Your task to perform on an android device: open app "Lyft - Rideshare, Bikes, Scooters & Transit" Image 0: 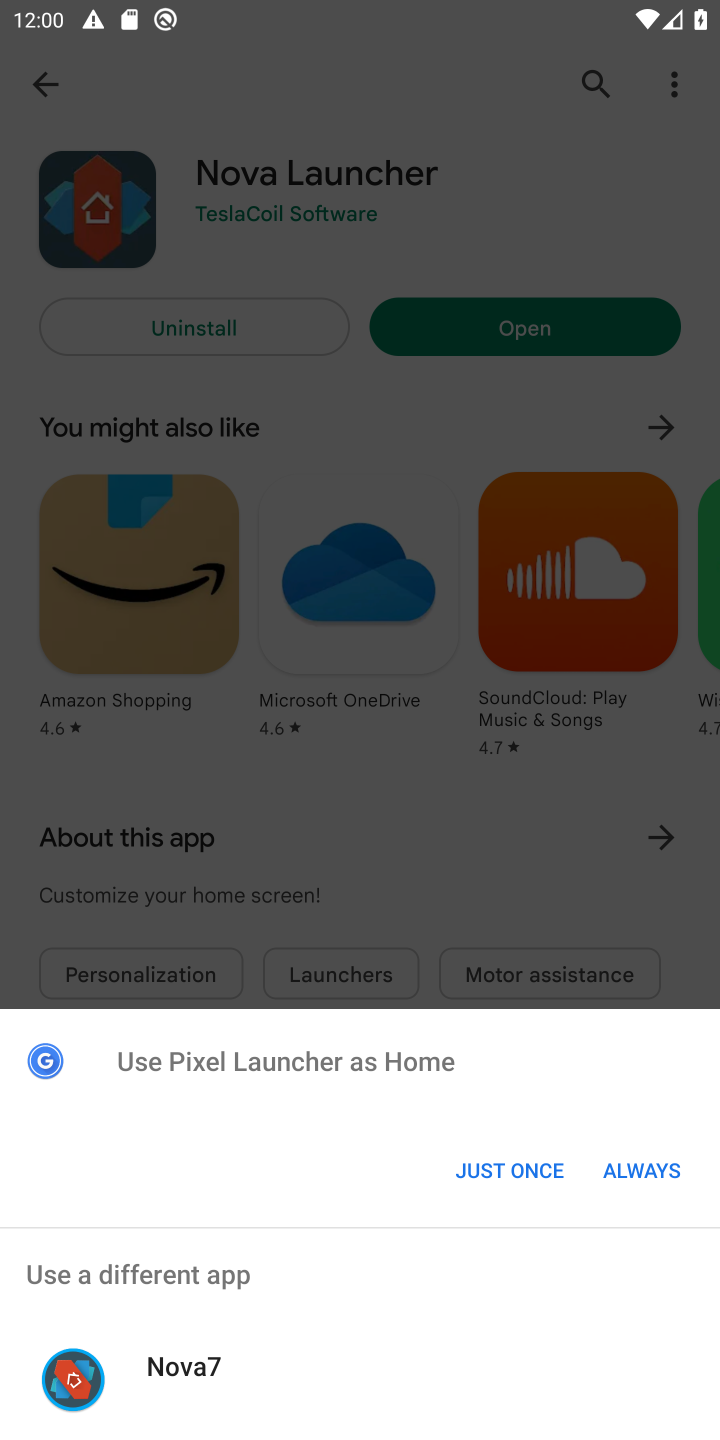
Step 0: click (638, 1172)
Your task to perform on an android device: open app "Lyft - Rideshare, Bikes, Scooters & Transit" Image 1: 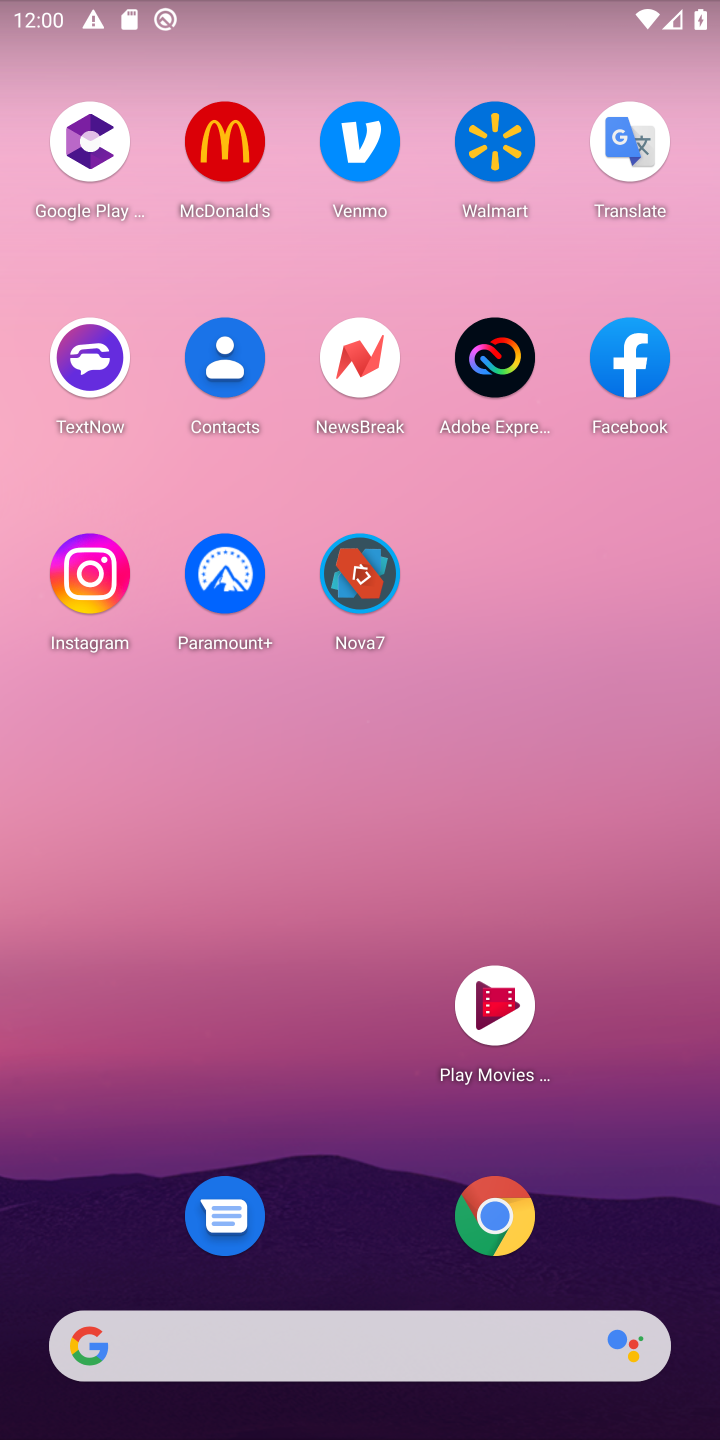
Step 1: drag from (661, 1115) to (717, 38)
Your task to perform on an android device: open app "Lyft - Rideshare, Bikes, Scooters & Transit" Image 2: 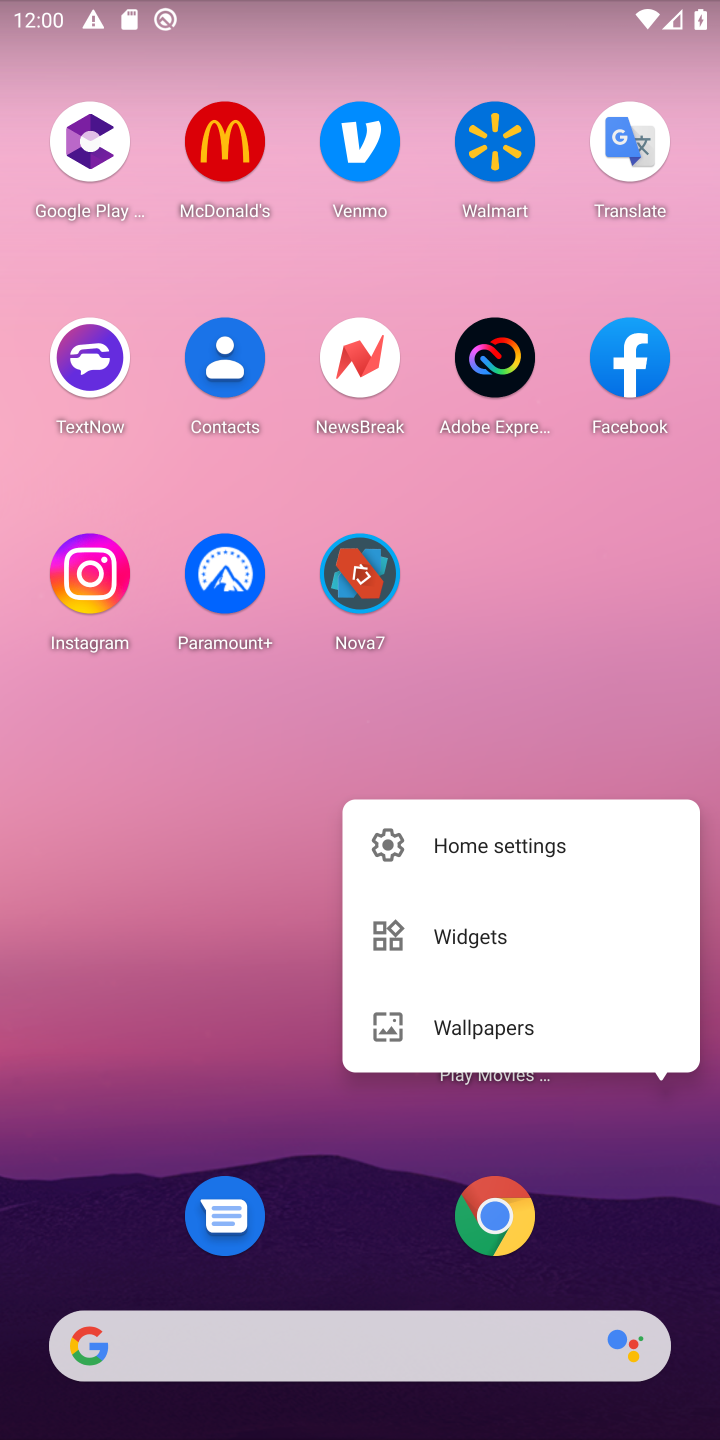
Step 2: click (498, 726)
Your task to perform on an android device: open app "Lyft - Rideshare, Bikes, Scooters & Transit" Image 3: 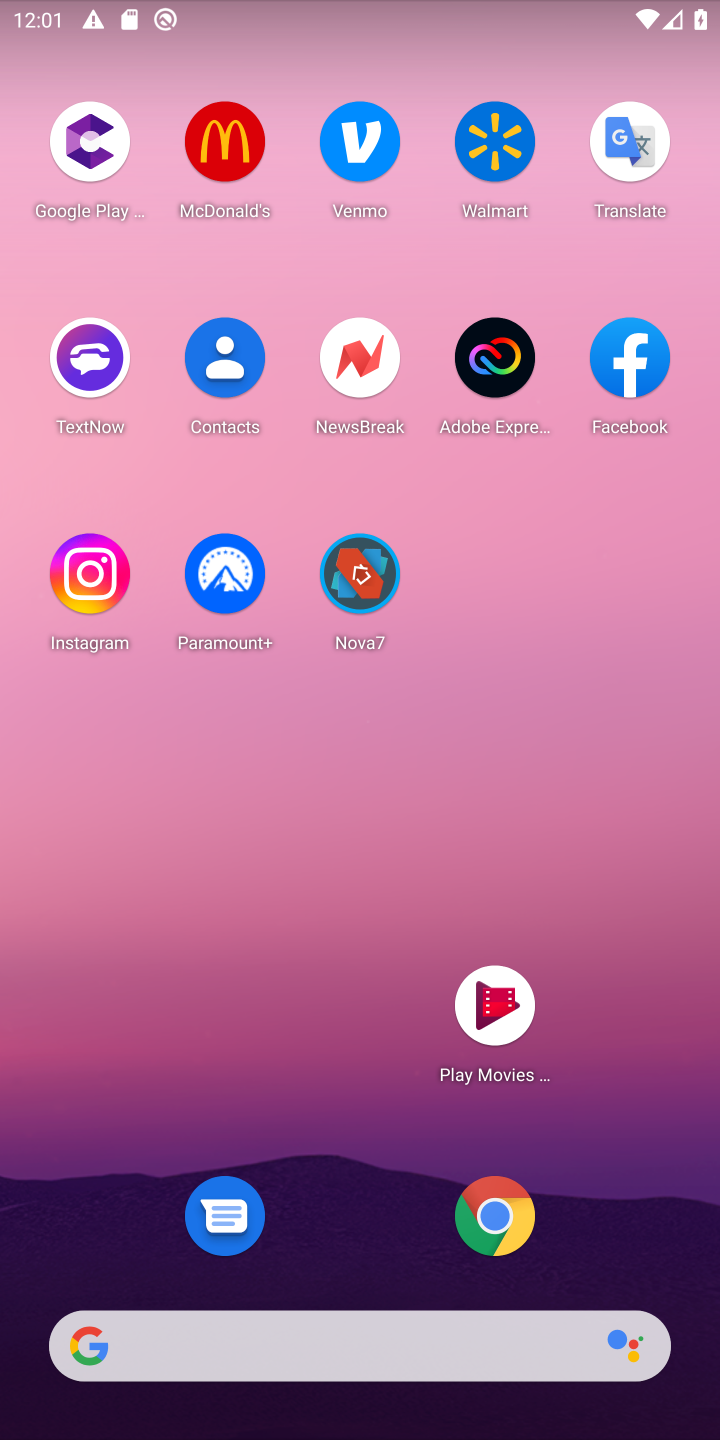
Step 3: drag from (650, 1096) to (683, 127)
Your task to perform on an android device: open app "Lyft - Rideshare, Bikes, Scooters & Transit" Image 4: 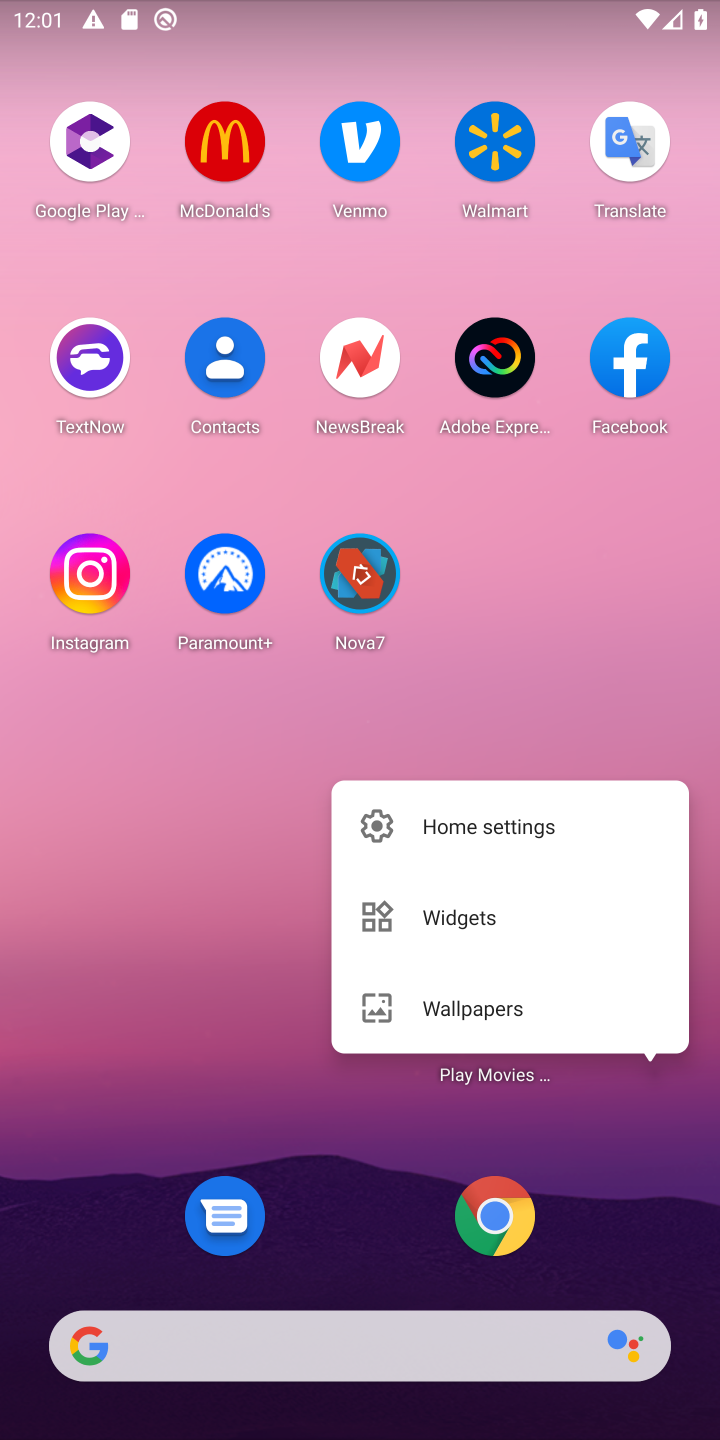
Step 4: click (246, 919)
Your task to perform on an android device: open app "Lyft - Rideshare, Bikes, Scooters & Transit" Image 5: 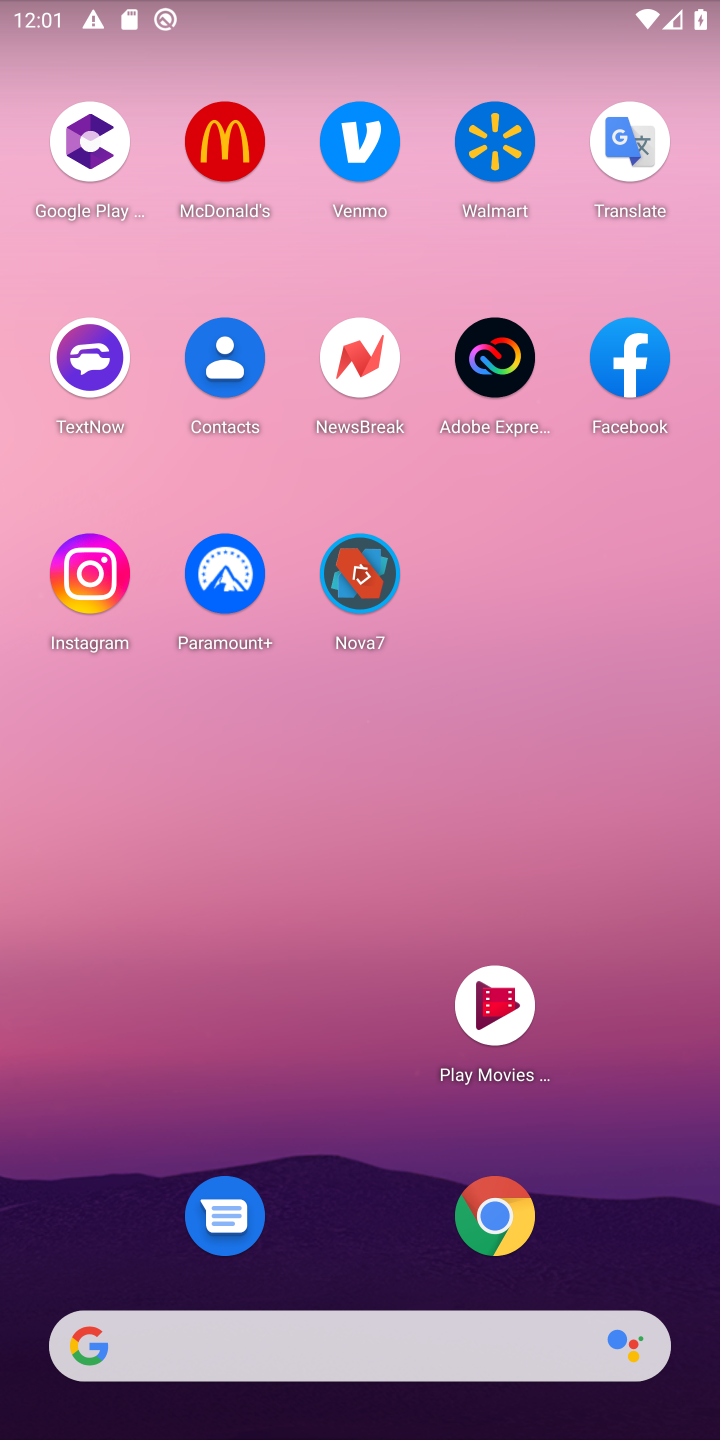
Step 5: drag from (383, 1239) to (466, 187)
Your task to perform on an android device: open app "Lyft - Rideshare, Bikes, Scooters & Transit" Image 6: 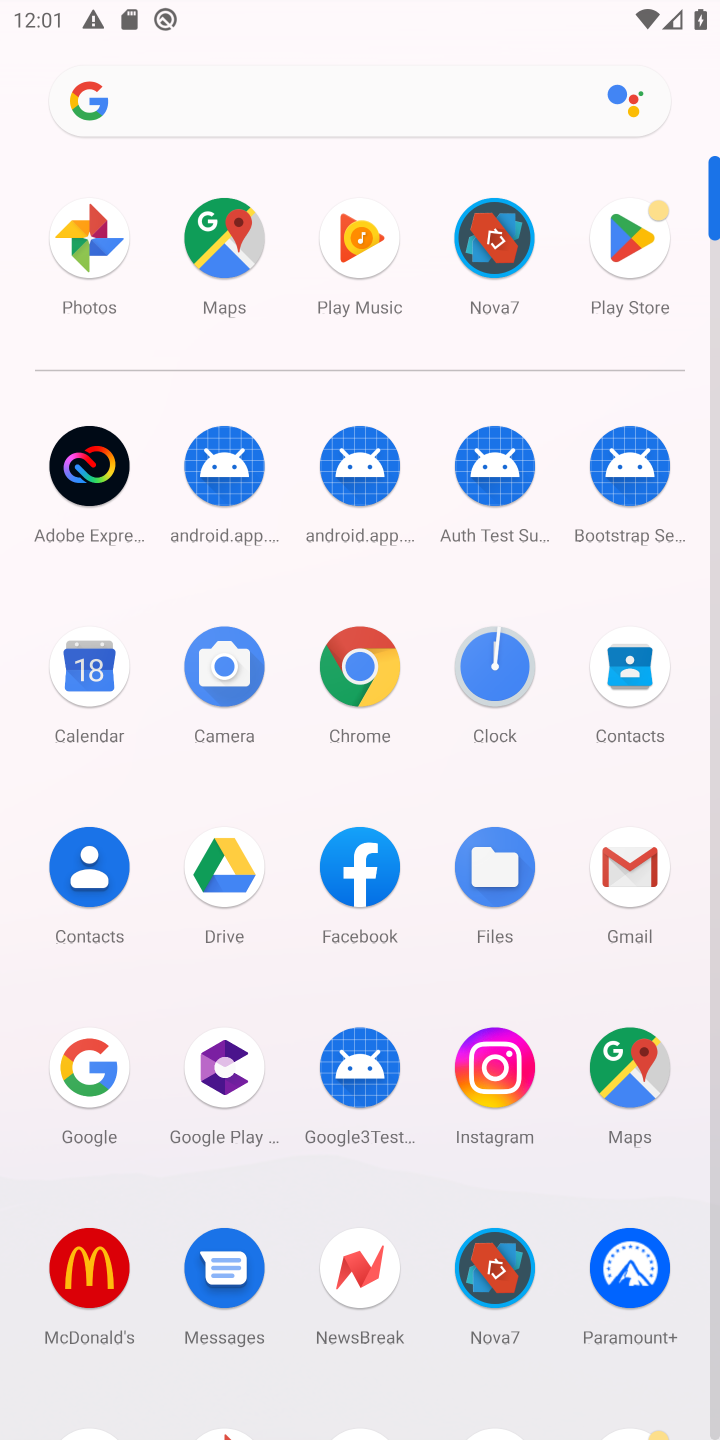
Step 6: click (629, 245)
Your task to perform on an android device: open app "Lyft - Rideshare, Bikes, Scooters & Transit" Image 7: 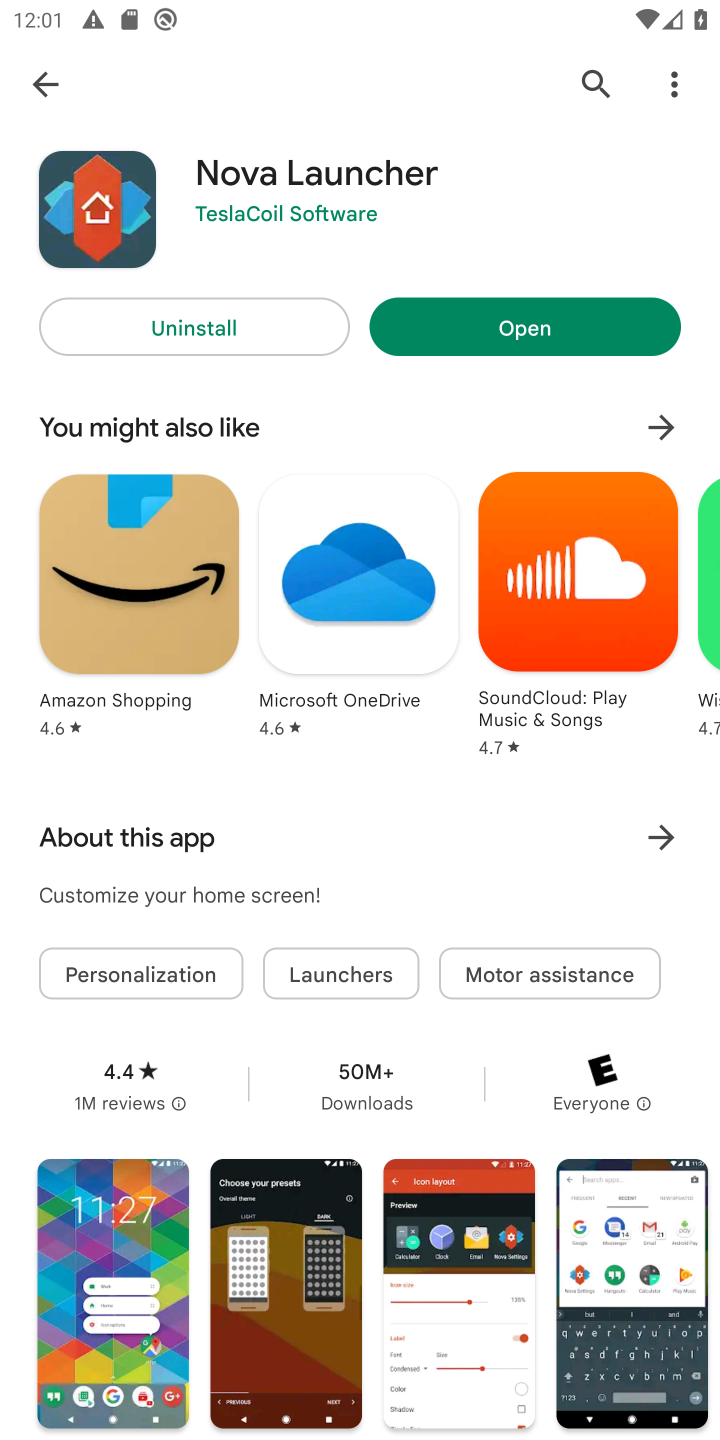
Step 7: click (594, 67)
Your task to perform on an android device: open app "Lyft - Rideshare, Bikes, Scooters & Transit" Image 8: 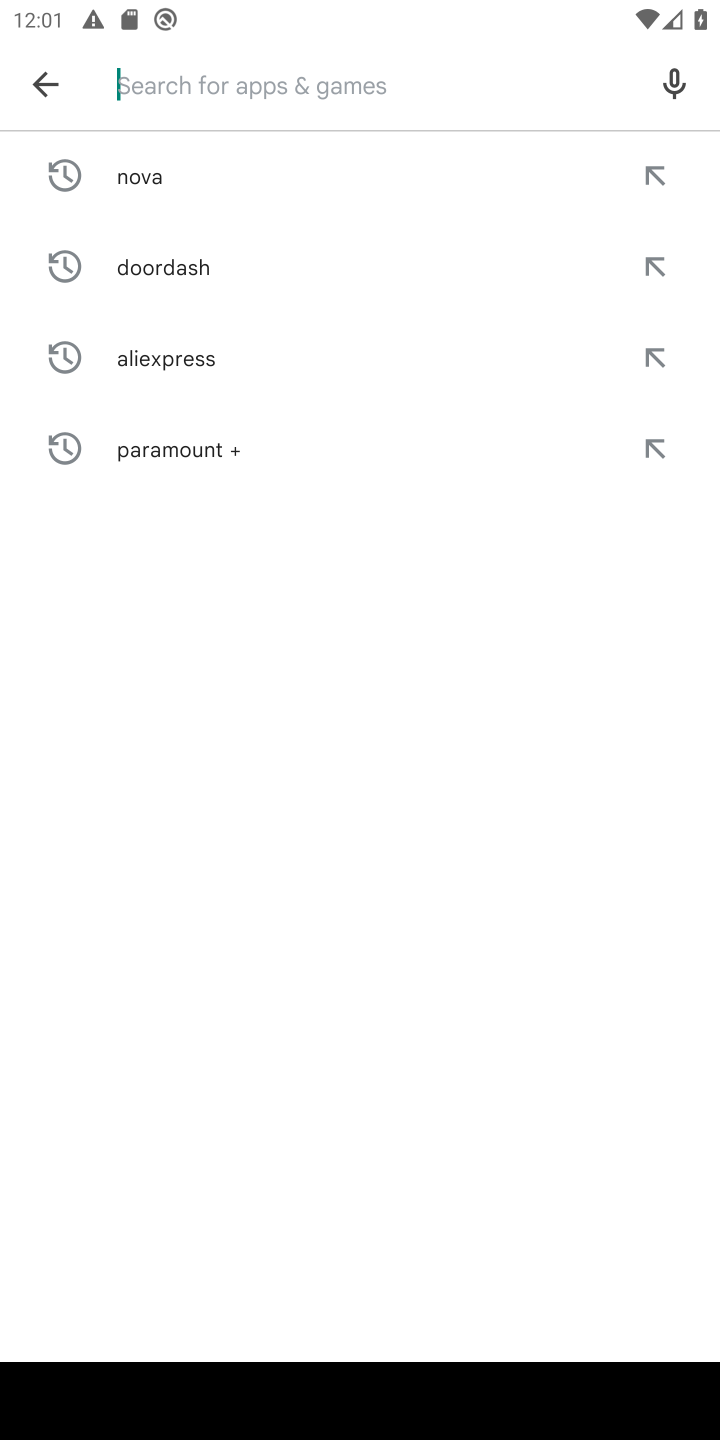
Step 8: type "lyft"
Your task to perform on an android device: open app "Lyft - Rideshare, Bikes, Scooters & Transit" Image 9: 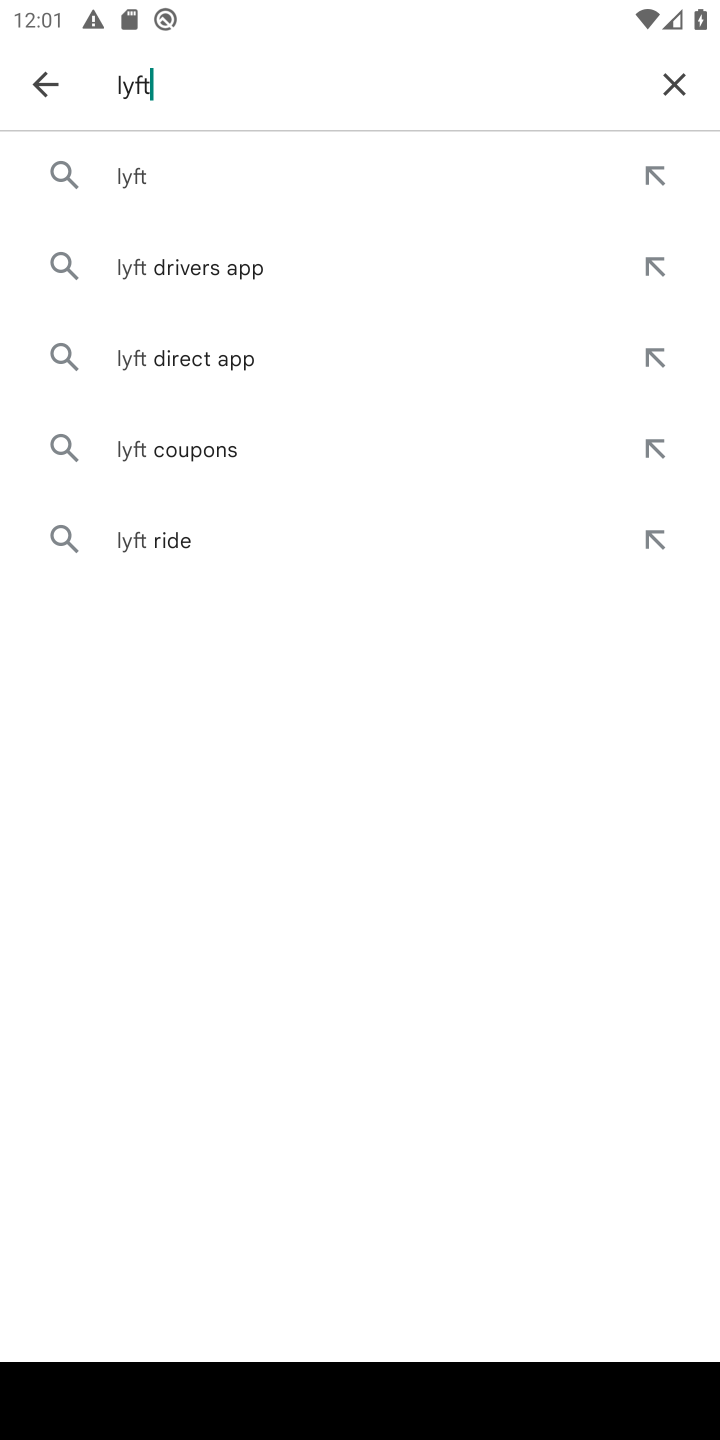
Step 9: click (274, 149)
Your task to perform on an android device: open app "Lyft - Rideshare, Bikes, Scooters & Transit" Image 10: 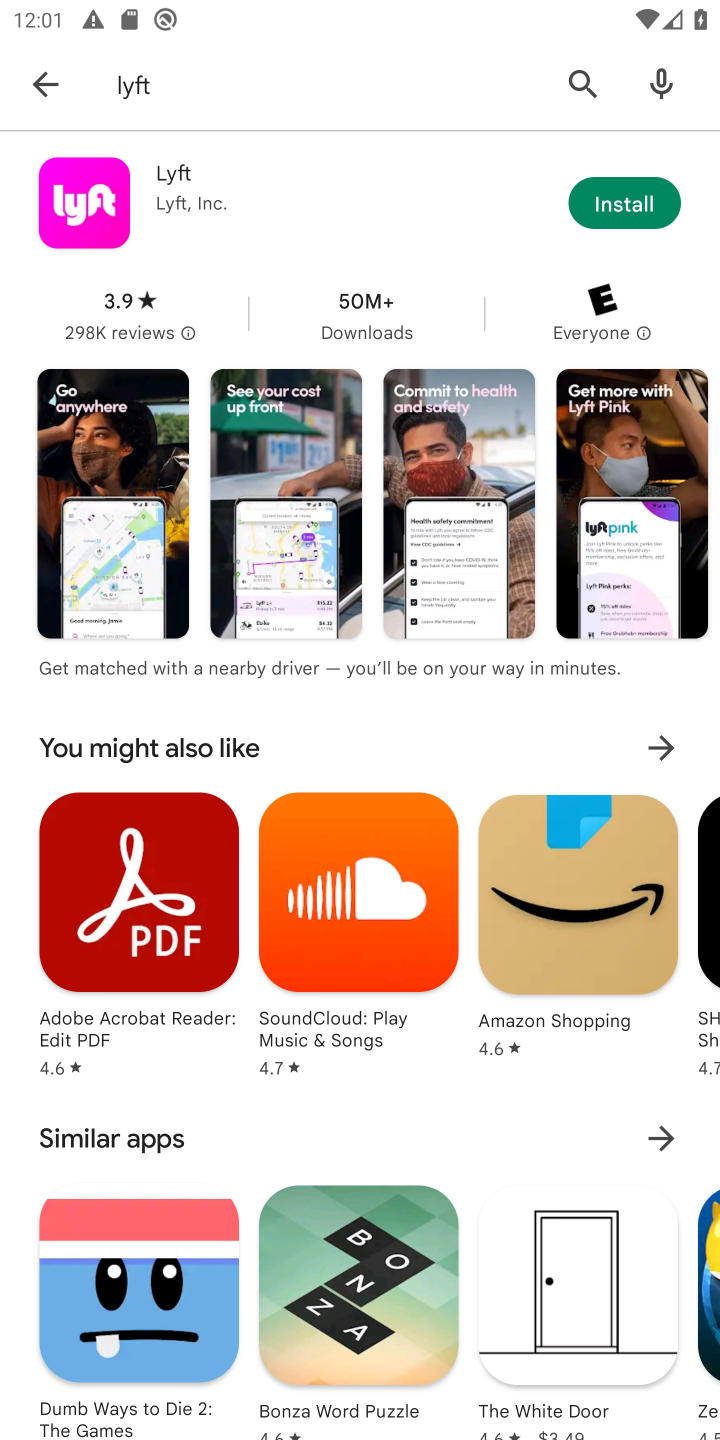
Step 10: click (554, 69)
Your task to perform on an android device: open app "Lyft - Rideshare, Bikes, Scooters & Transit" Image 11: 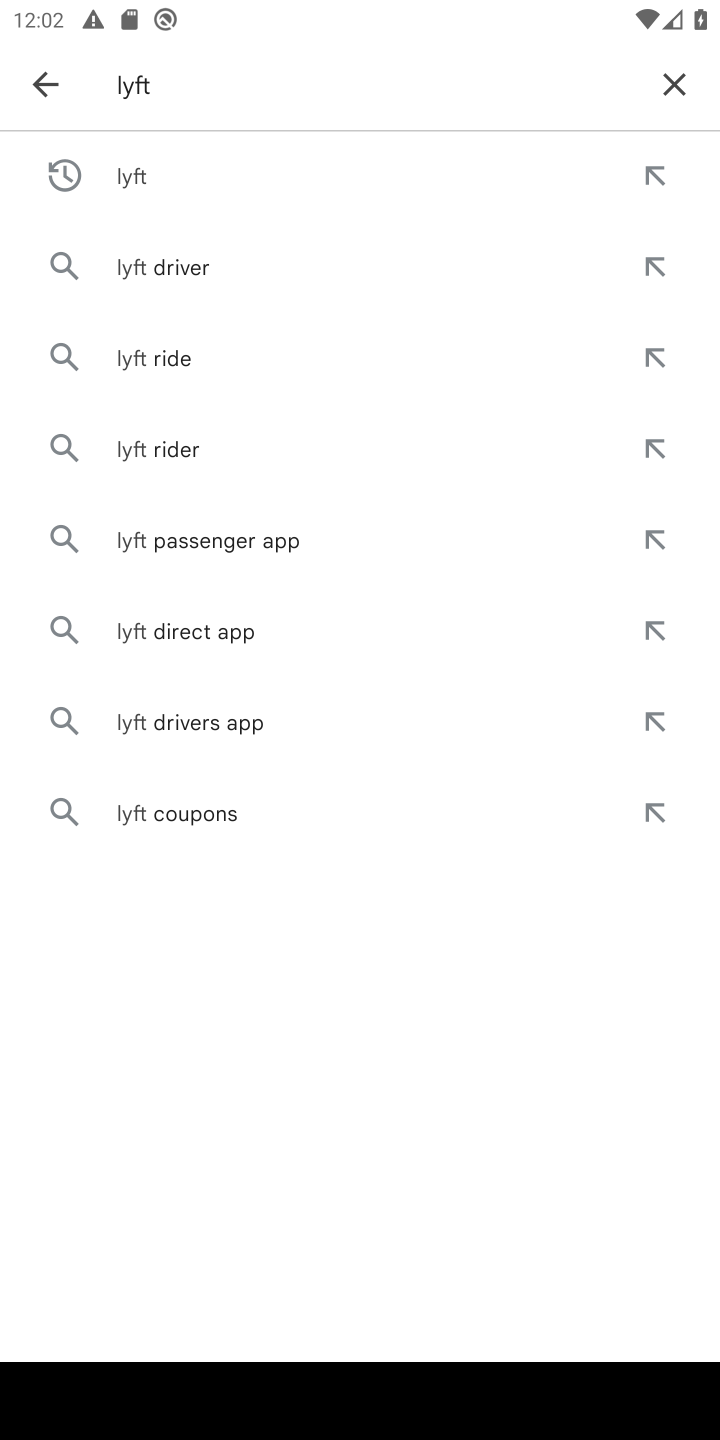
Step 11: type " - -rideshare, bikes"
Your task to perform on an android device: open app "Lyft - Rideshare, Bikes, Scooters & Transit" Image 12: 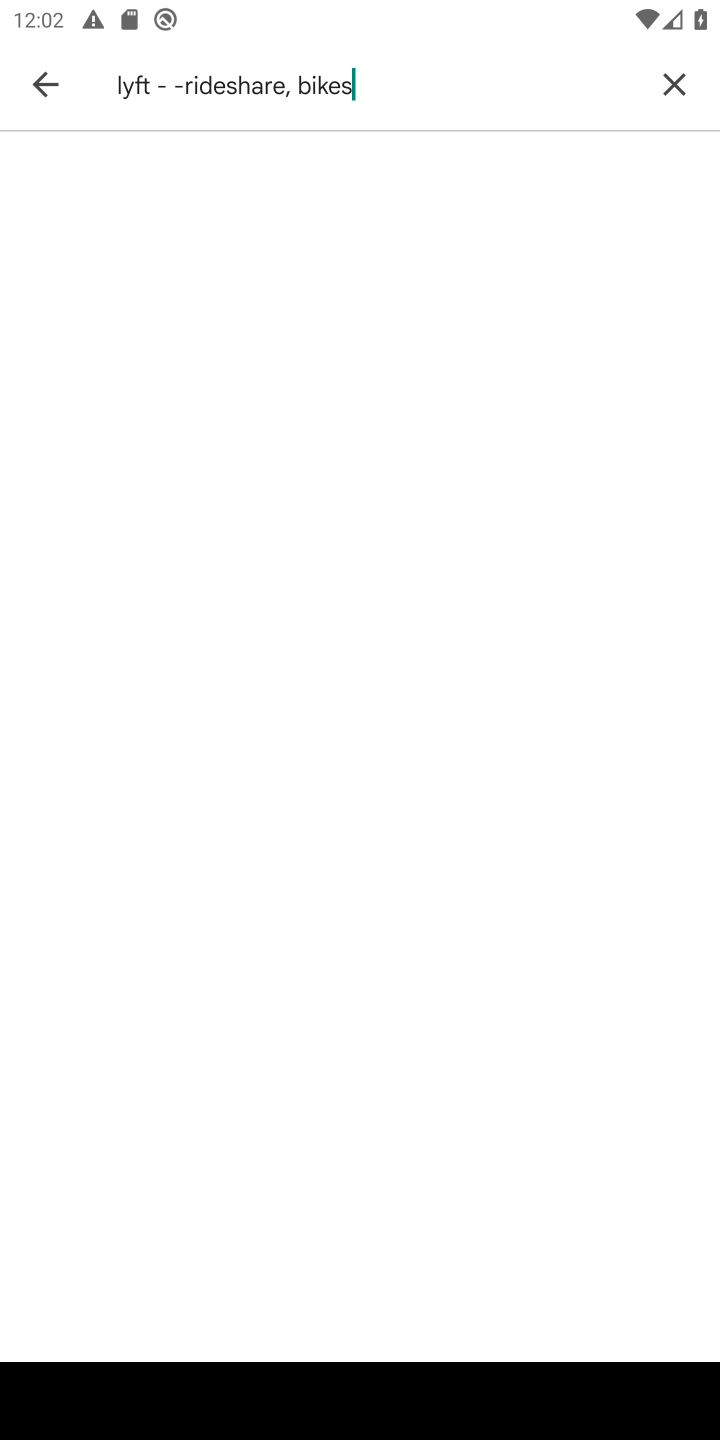
Step 12: press enter
Your task to perform on an android device: open app "Lyft - Rideshare, Bikes, Scooters & Transit" Image 13: 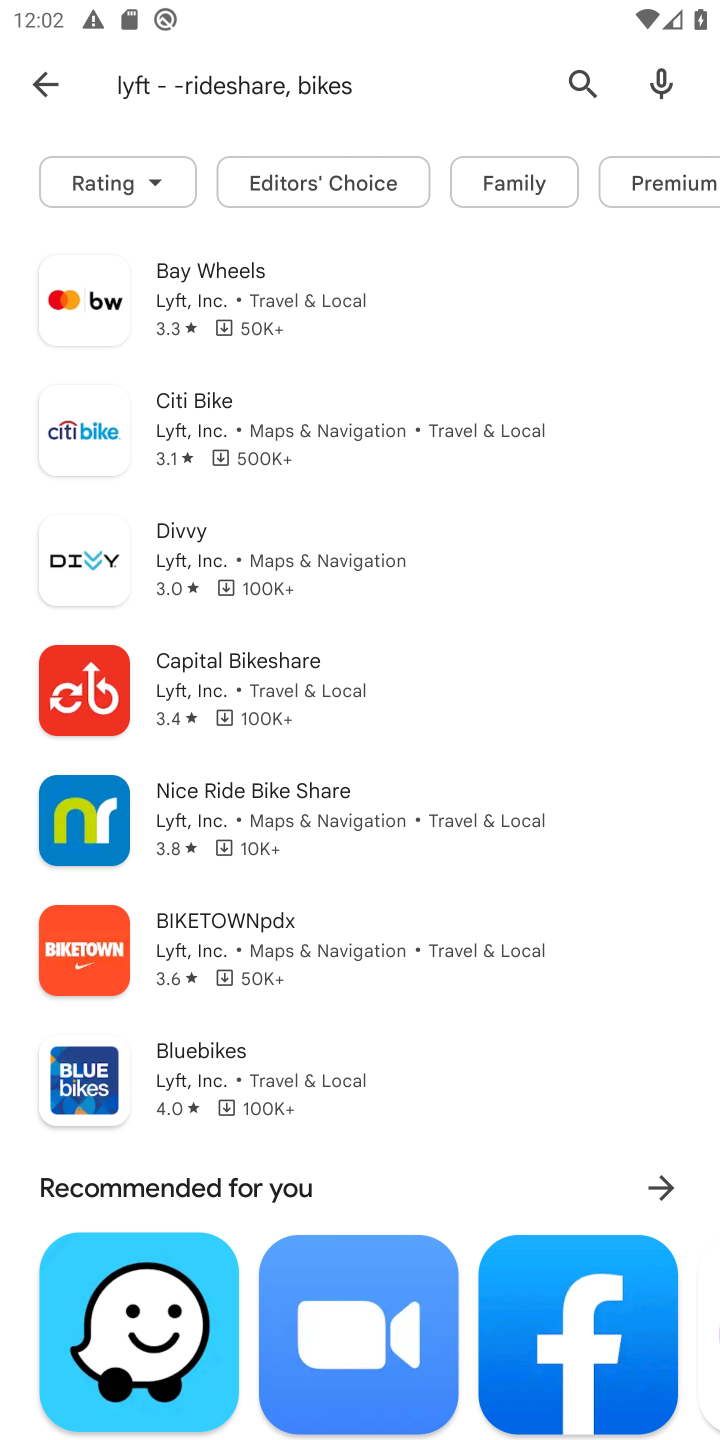
Step 13: task complete